Your task to perform on an android device: Open the calendar and show me this week's events? Image 0: 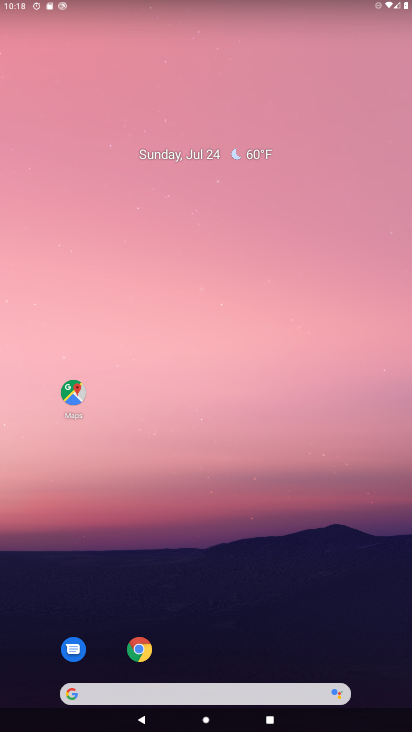
Step 0: drag from (208, 449) to (150, 0)
Your task to perform on an android device: Open the calendar and show me this week's events? Image 1: 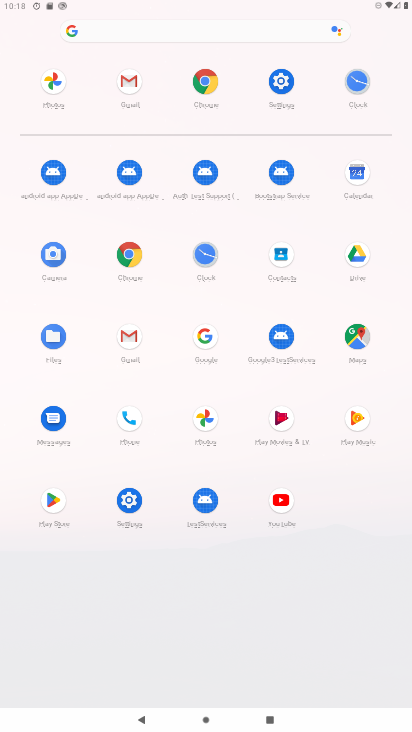
Step 1: click (366, 174)
Your task to perform on an android device: Open the calendar and show me this week's events? Image 2: 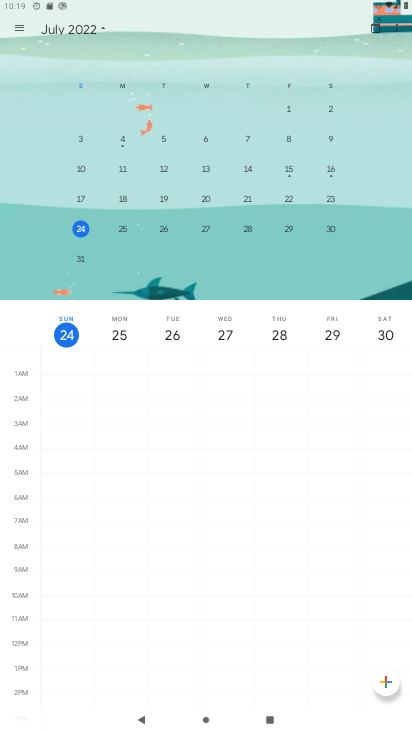
Step 2: task complete